Your task to perform on an android device: What's the weather? Image 0: 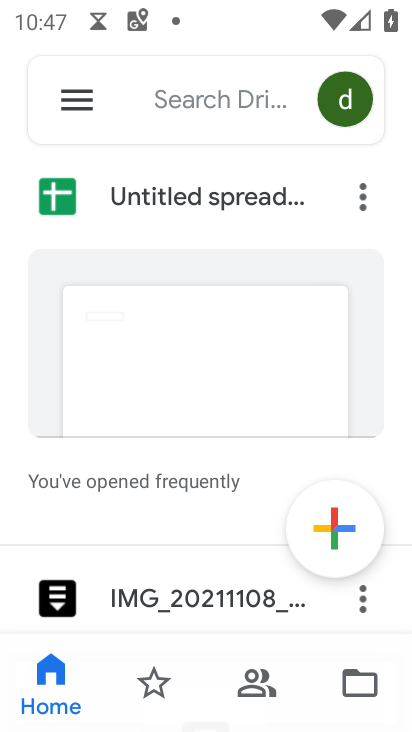
Step 0: press home button
Your task to perform on an android device: What's the weather? Image 1: 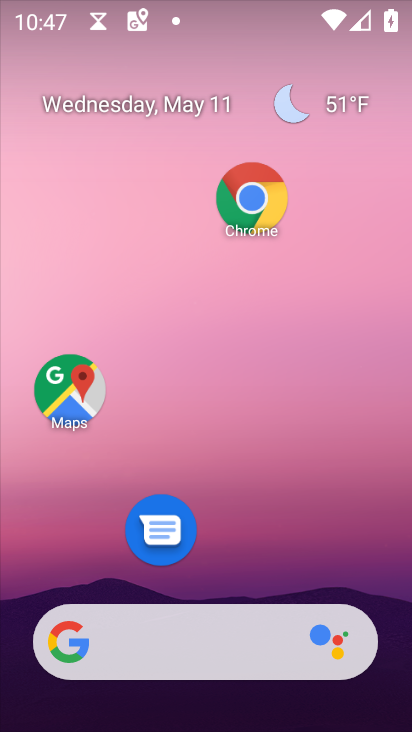
Step 1: click (205, 641)
Your task to perform on an android device: What's the weather? Image 2: 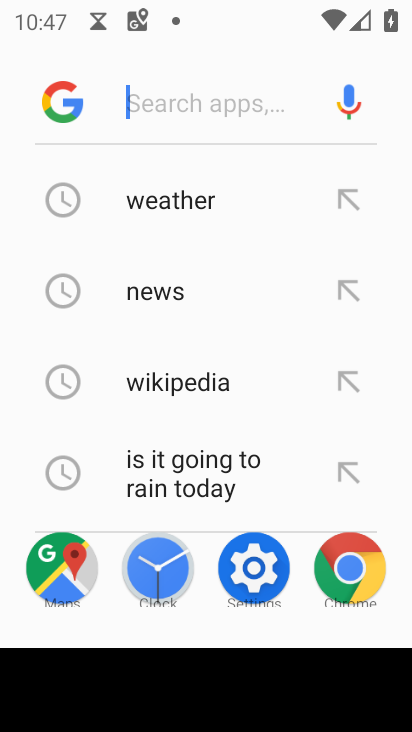
Step 2: click (165, 211)
Your task to perform on an android device: What's the weather? Image 3: 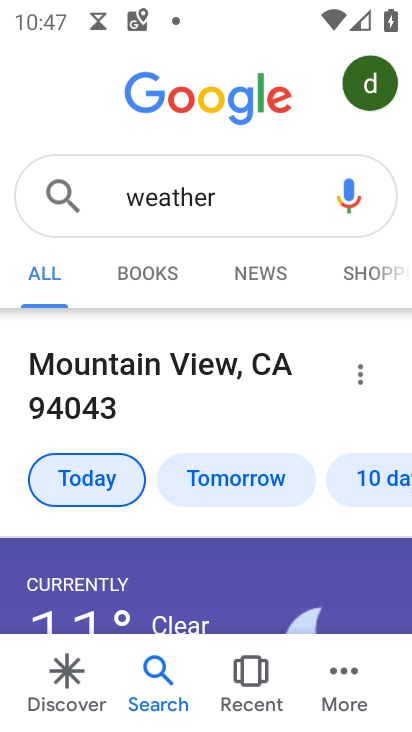
Step 3: task complete